Your task to perform on an android device: delete location history Image 0: 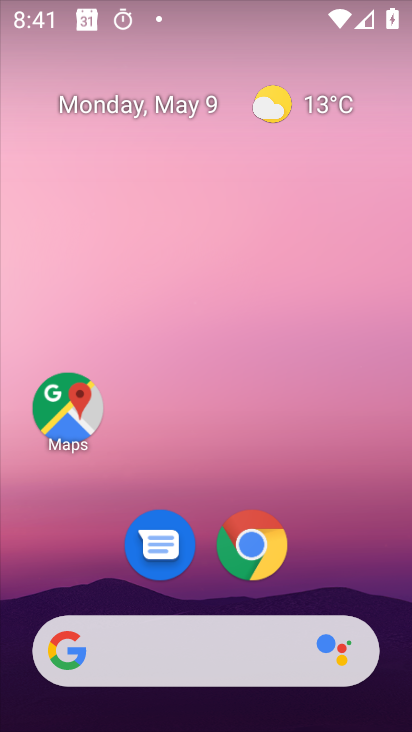
Step 0: drag from (380, 527) to (361, 72)
Your task to perform on an android device: delete location history Image 1: 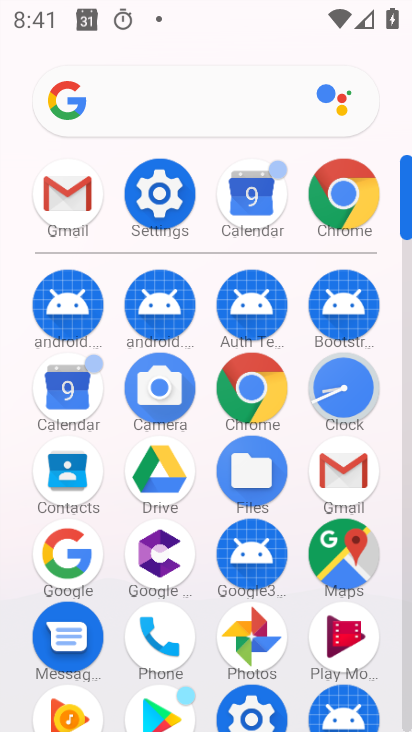
Step 1: click (171, 218)
Your task to perform on an android device: delete location history Image 2: 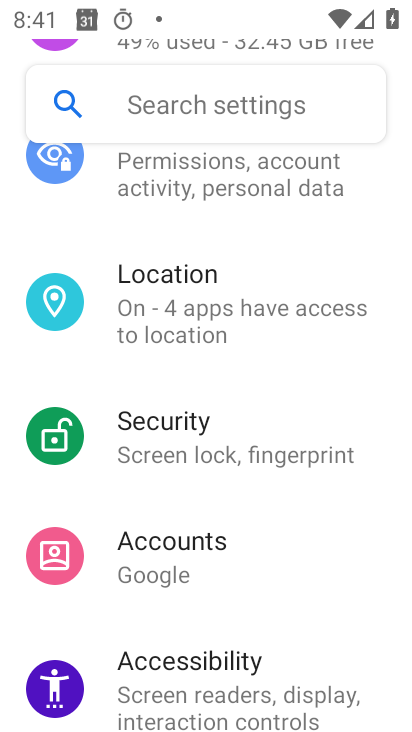
Step 2: drag from (206, 257) to (194, 600)
Your task to perform on an android device: delete location history Image 3: 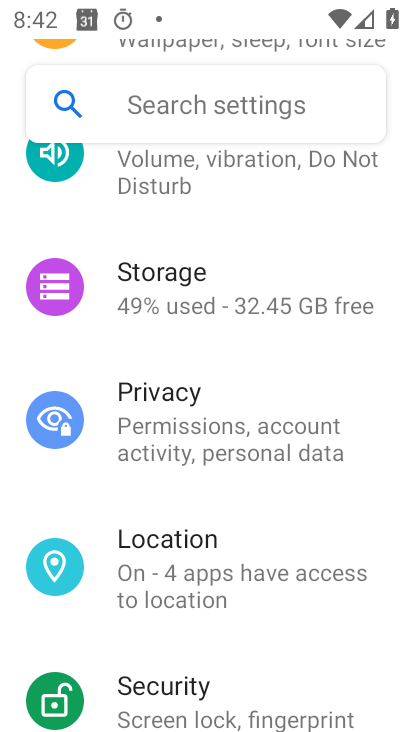
Step 3: drag from (285, 389) to (313, 655)
Your task to perform on an android device: delete location history Image 4: 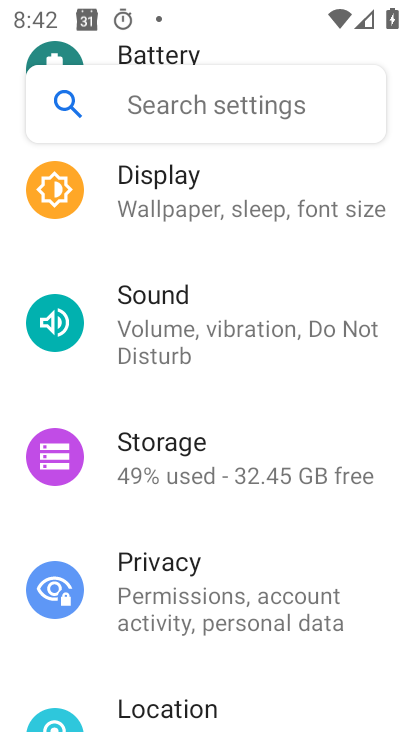
Step 4: drag from (231, 260) to (276, 572)
Your task to perform on an android device: delete location history Image 5: 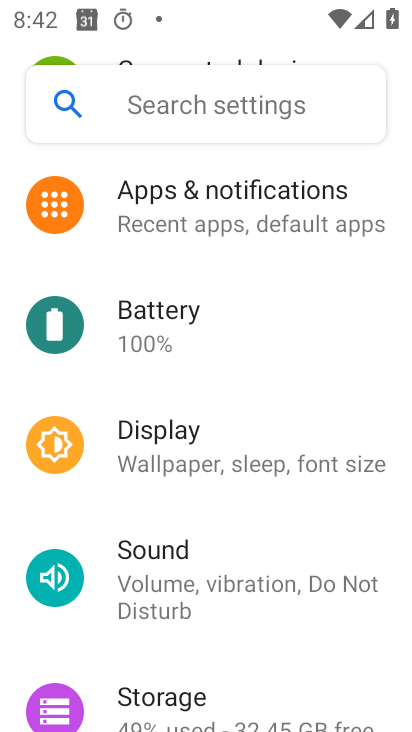
Step 5: drag from (197, 254) to (259, 586)
Your task to perform on an android device: delete location history Image 6: 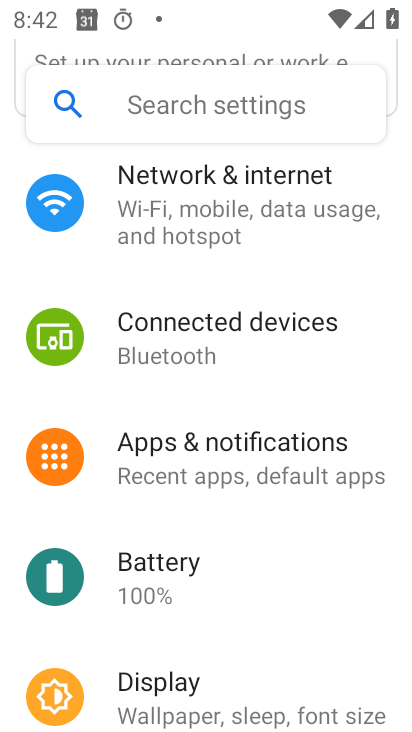
Step 6: drag from (260, 279) to (302, 577)
Your task to perform on an android device: delete location history Image 7: 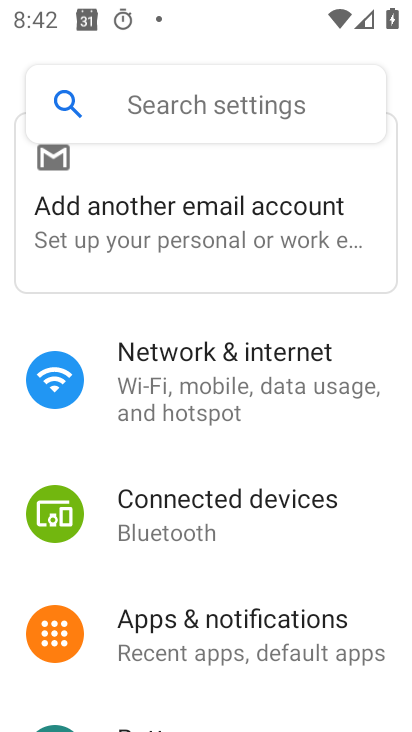
Step 7: drag from (223, 608) to (188, 262)
Your task to perform on an android device: delete location history Image 8: 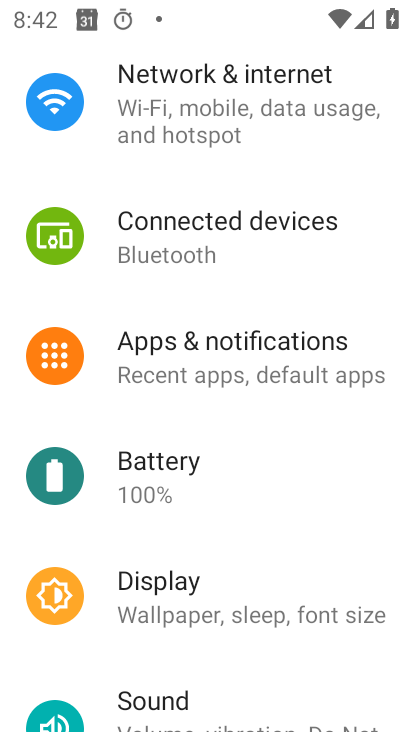
Step 8: press home button
Your task to perform on an android device: delete location history Image 9: 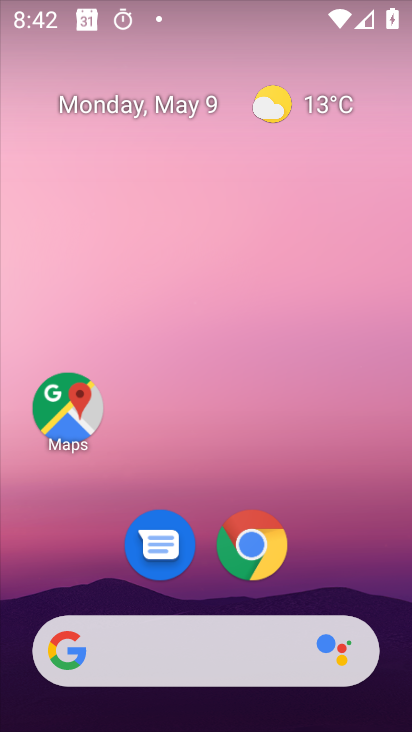
Step 9: drag from (347, 543) to (276, 37)
Your task to perform on an android device: delete location history Image 10: 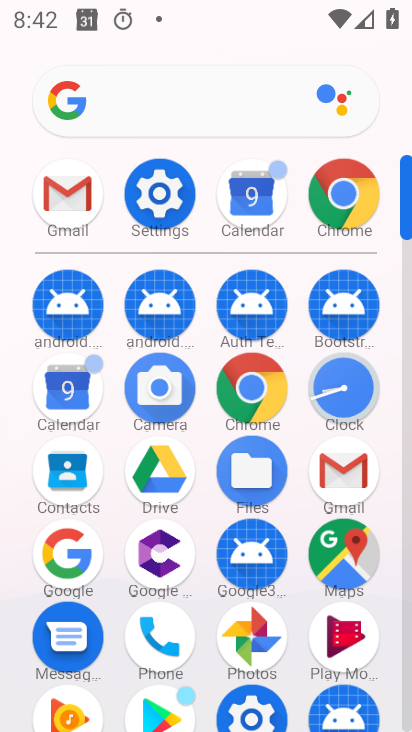
Step 10: click (346, 545)
Your task to perform on an android device: delete location history Image 11: 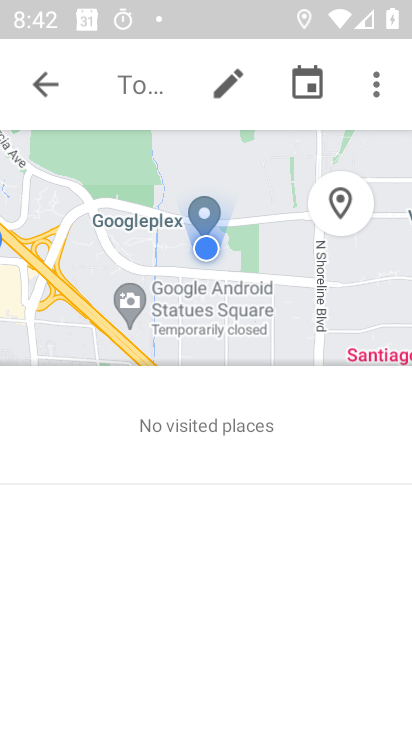
Step 11: click (361, 99)
Your task to perform on an android device: delete location history Image 12: 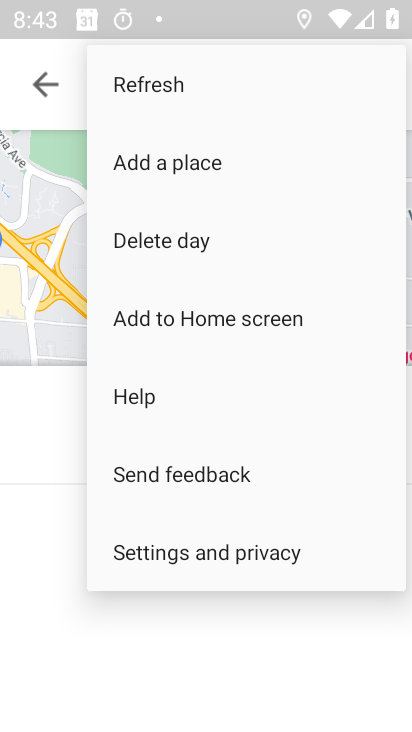
Step 12: click (222, 549)
Your task to perform on an android device: delete location history Image 13: 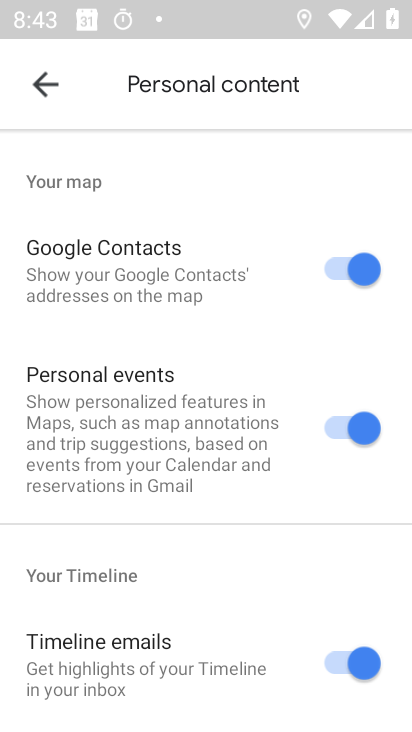
Step 13: drag from (243, 679) to (284, 246)
Your task to perform on an android device: delete location history Image 14: 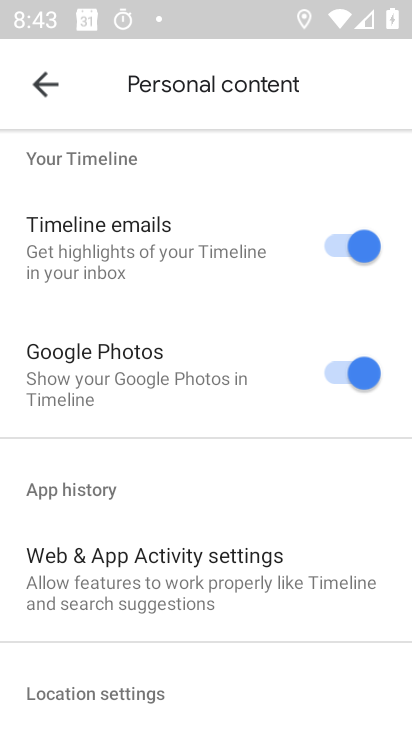
Step 14: drag from (257, 624) to (338, 219)
Your task to perform on an android device: delete location history Image 15: 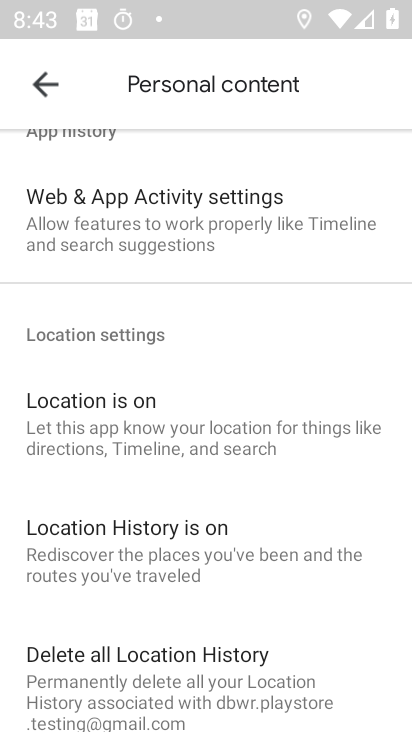
Step 15: drag from (173, 602) to (279, 225)
Your task to perform on an android device: delete location history Image 16: 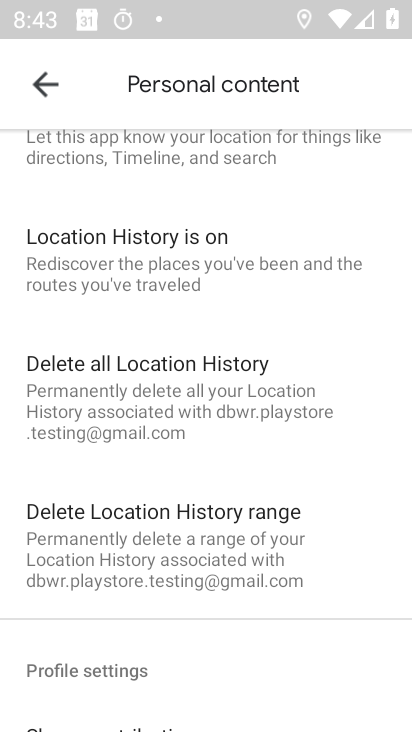
Step 16: click (235, 377)
Your task to perform on an android device: delete location history Image 17: 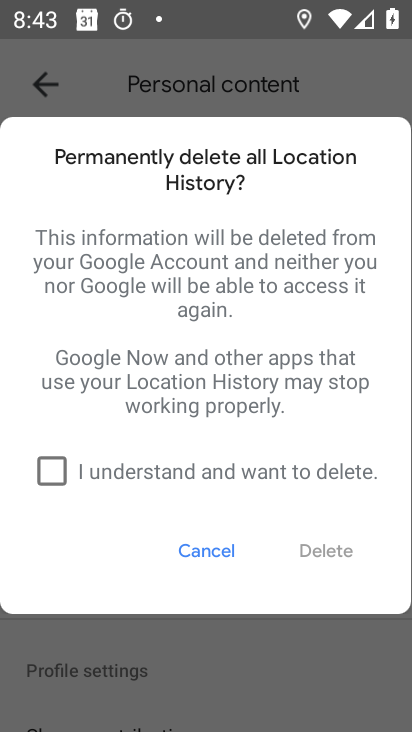
Step 17: click (52, 469)
Your task to perform on an android device: delete location history Image 18: 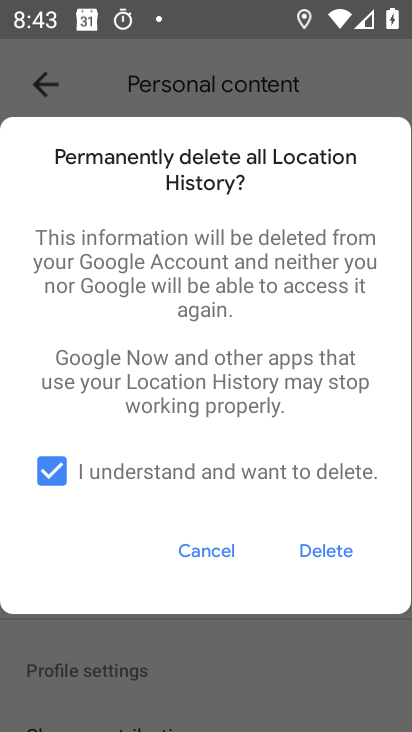
Step 18: click (313, 560)
Your task to perform on an android device: delete location history Image 19: 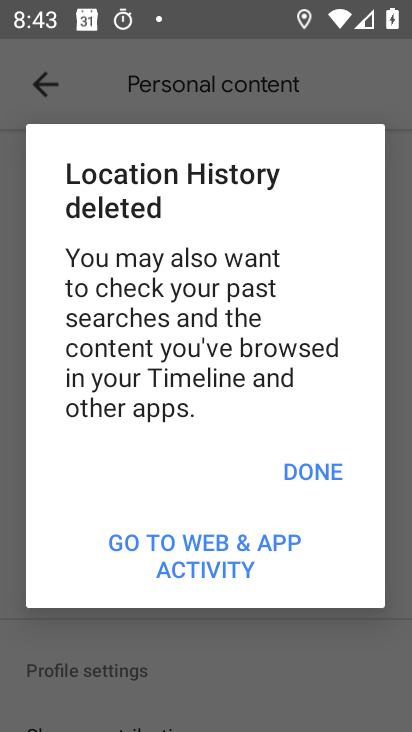
Step 19: task complete